Your task to perform on an android device: toggle improve location accuracy Image 0: 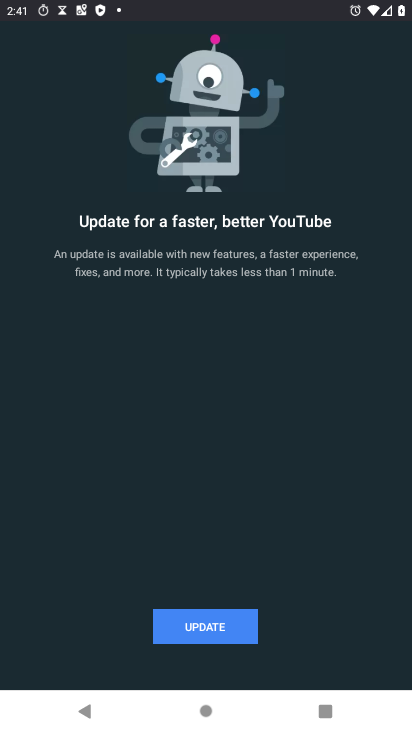
Step 0: press home button
Your task to perform on an android device: toggle improve location accuracy Image 1: 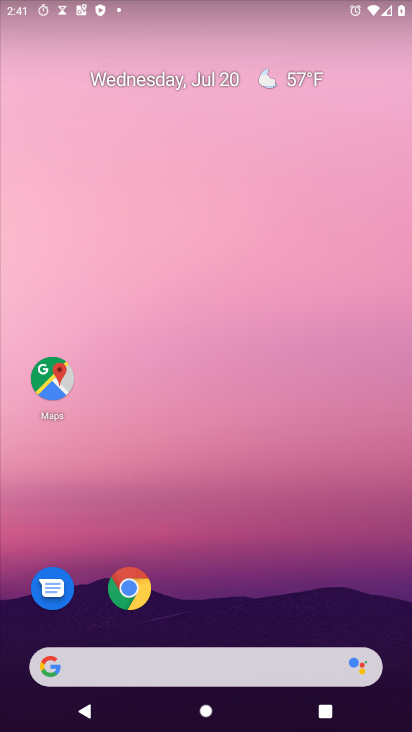
Step 1: drag from (291, 658) to (288, 38)
Your task to perform on an android device: toggle improve location accuracy Image 2: 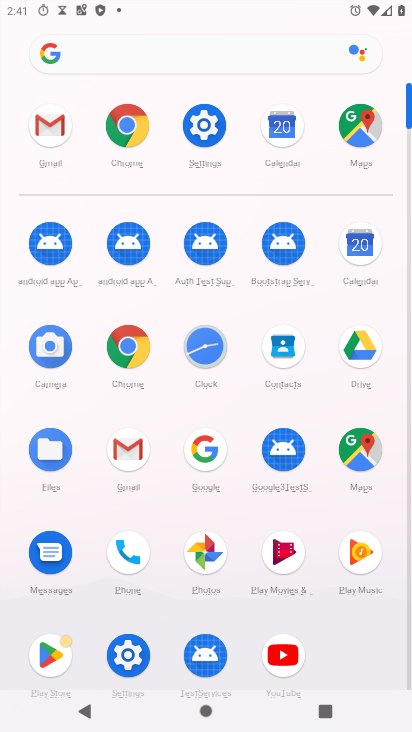
Step 2: click (201, 136)
Your task to perform on an android device: toggle improve location accuracy Image 3: 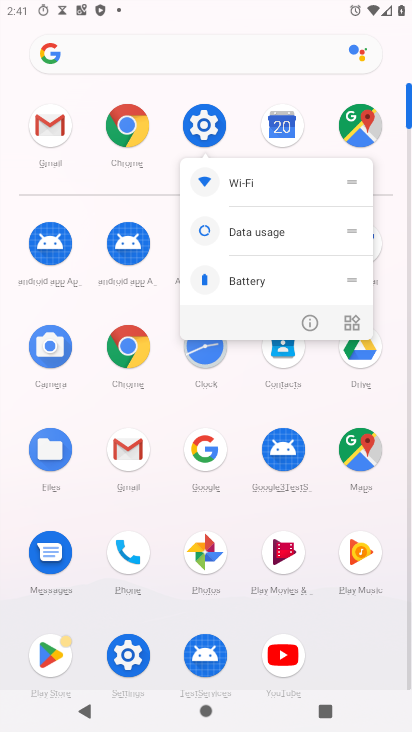
Step 3: click (206, 125)
Your task to perform on an android device: toggle improve location accuracy Image 4: 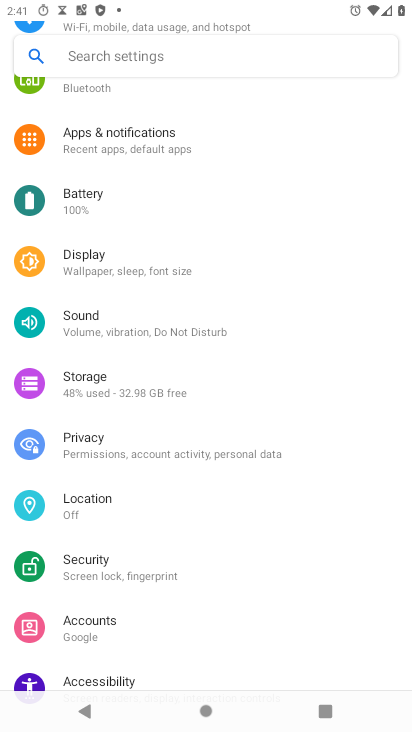
Step 4: click (142, 509)
Your task to perform on an android device: toggle improve location accuracy Image 5: 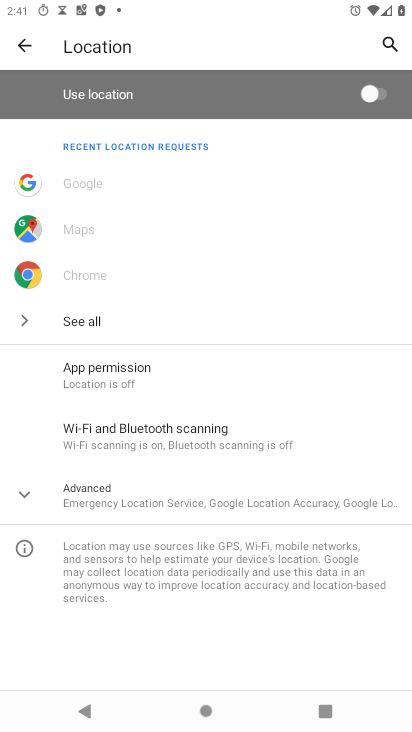
Step 5: click (141, 509)
Your task to perform on an android device: toggle improve location accuracy Image 6: 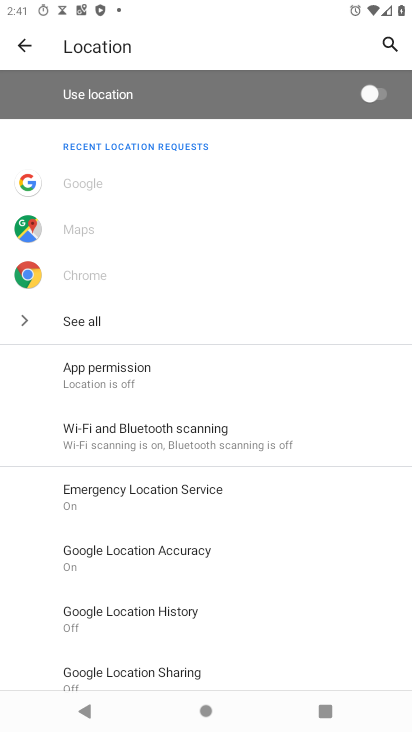
Step 6: click (127, 550)
Your task to perform on an android device: toggle improve location accuracy Image 7: 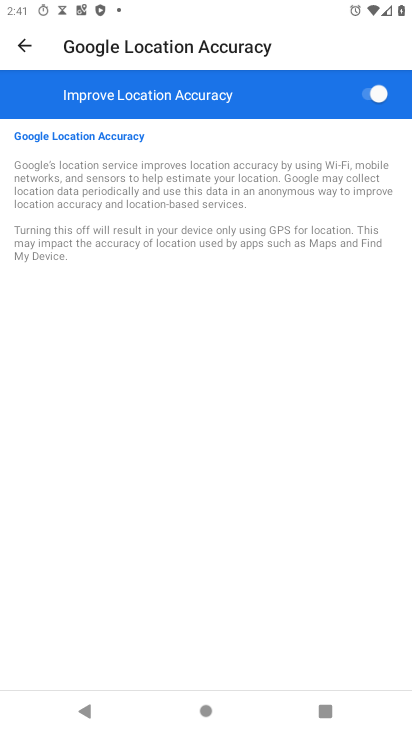
Step 7: click (376, 96)
Your task to perform on an android device: toggle improve location accuracy Image 8: 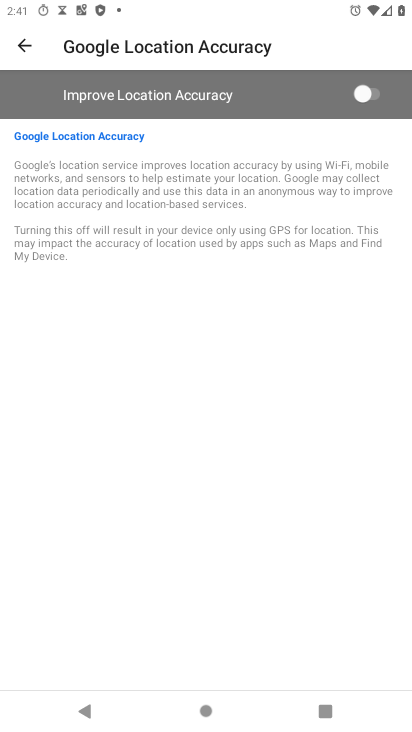
Step 8: task complete